Your task to perform on an android device: Open Google Chrome and click the shortcut for Amazon.com Image 0: 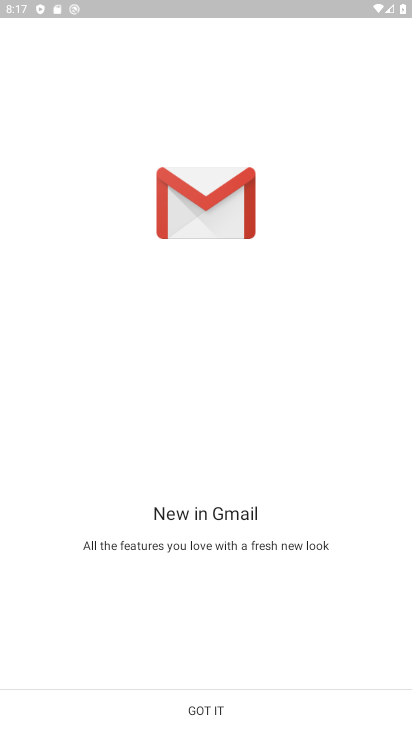
Step 0: click (196, 709)
Your task to perform on an android device: Open Google Chrome and click the shortcut for Amazon.com Image 1: 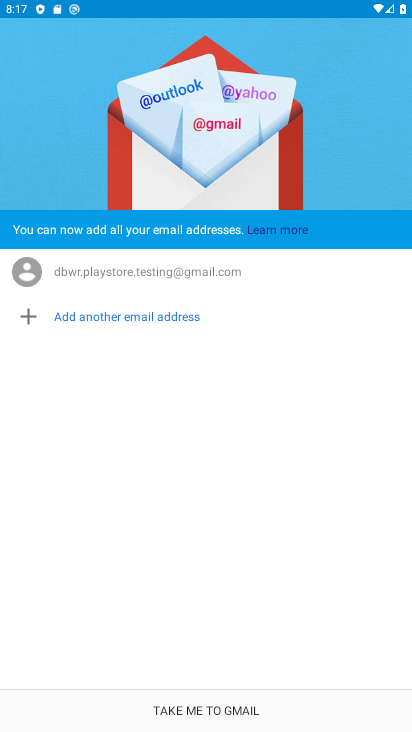
Step 1: task complete